Your task to perform on an android device: turn off picture-in-picture Image 0: 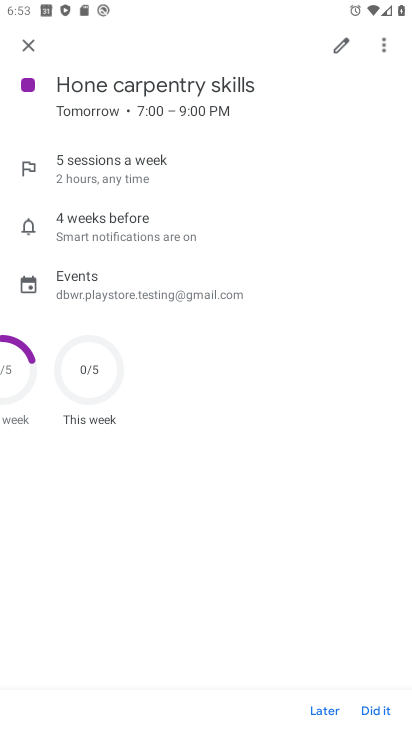
Step 0: press home button
Your task to perform on an android device: turn off picture-in-picture Image 1: 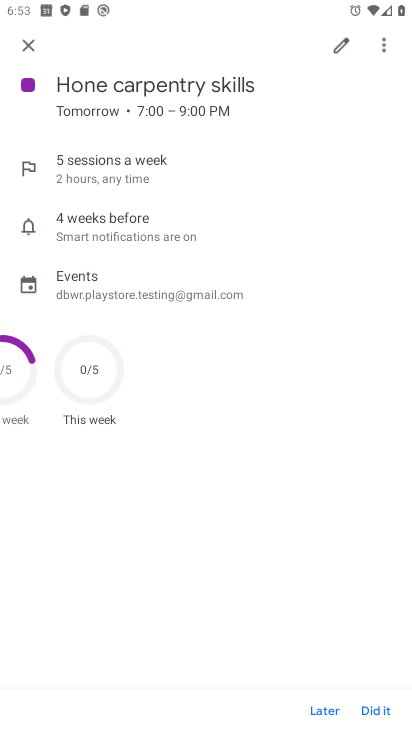
Step 1: drag from (295, 240) to (255, 40)
Your task to perform on an android device: turn off picture-in-picture Image 2: 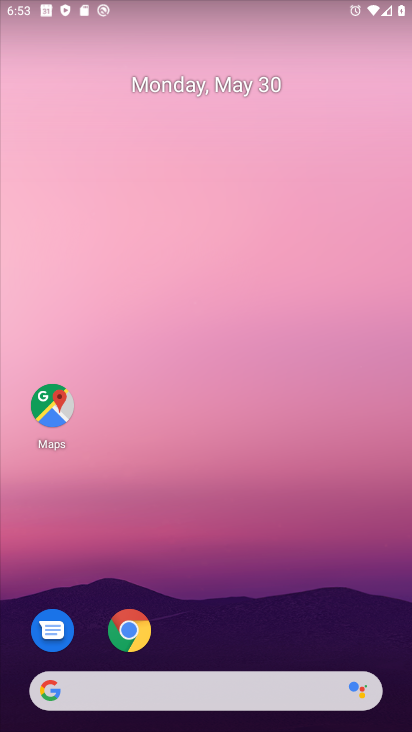
Step 2: drag from (273, 622) to (250, 2)
Your task to perform on an android device: turn off picture-in-picture Image 3: 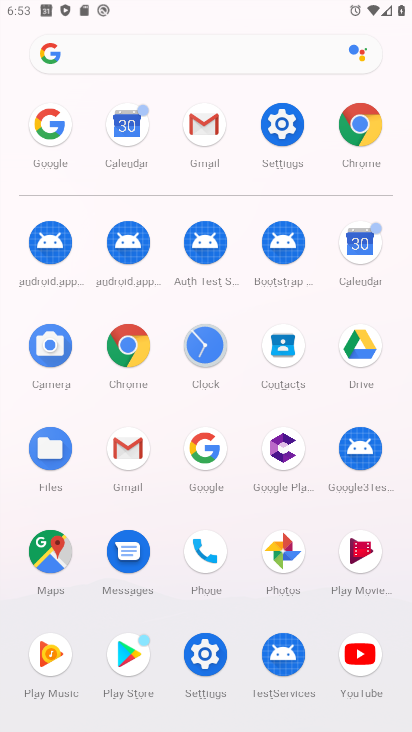
Step 3: click (358, 132)
Your task to perform on an android device: turn off picture-in-picture Image 4: 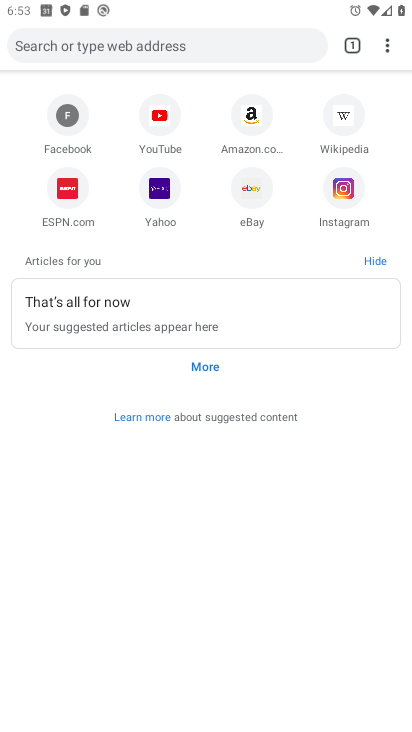
Step 4: task complete